Your task to perform on an android device: turn off translation in the chrome app Image 0: 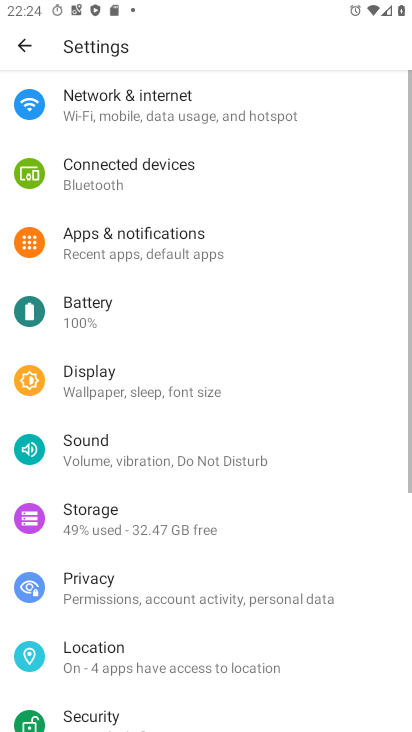
Step 0: press back button
Your task to perform on an android device: turn off translation in the chrome app Image 1: 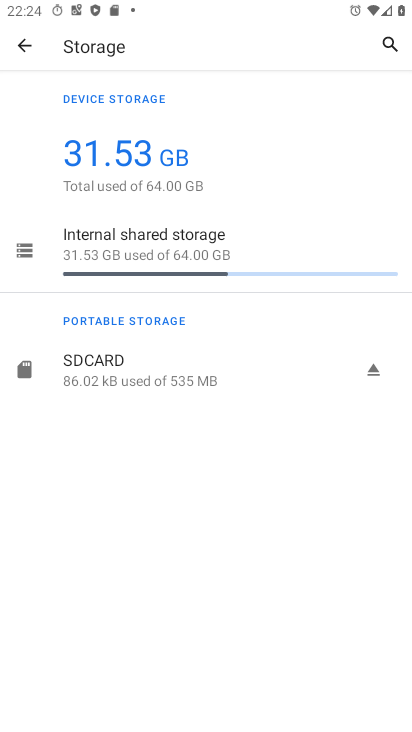
Step 1: press back button
Your task to perform on an android device: turn off translation in the chrome app Image 2: 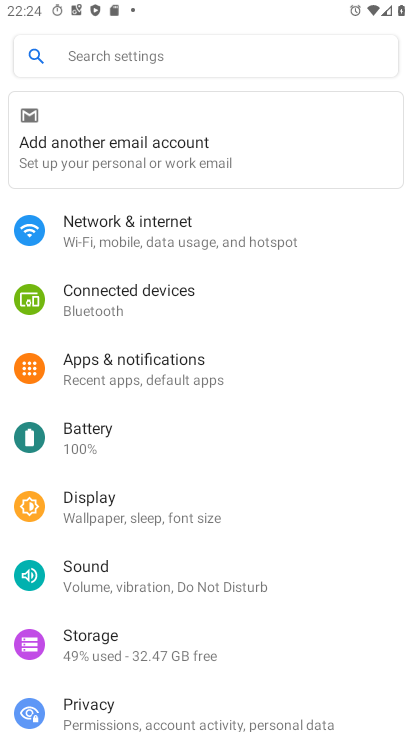
Step 2: press back button
Your task to perform on an android device: turn off translation in the chrome app Image 3: 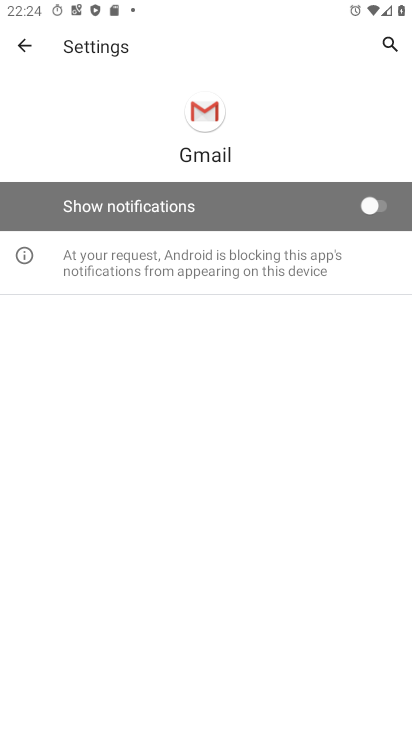
Step 3: press back button
Your task to perform on an android device: turn off translation in the chrome app Image 4: 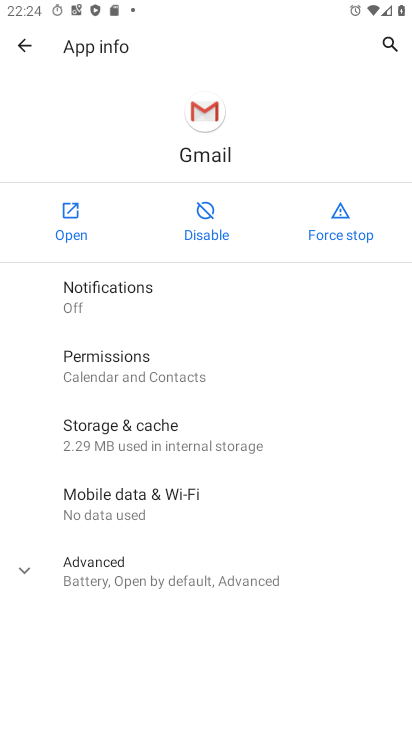
Step 4: press back button
Your task to perform on an android device: turn off translation in the chrome app Image 5: 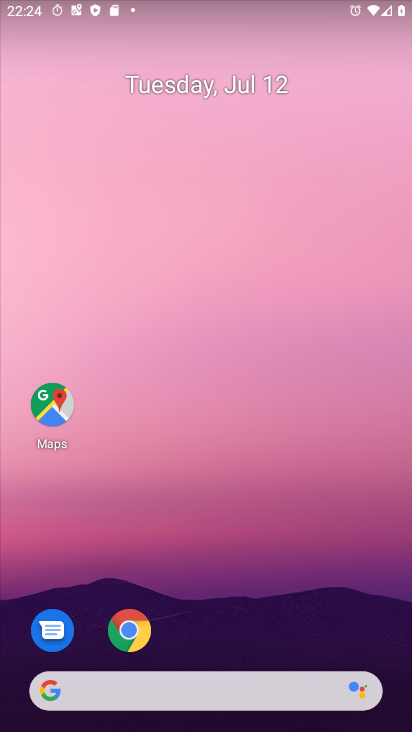
Step 5: click (129, 641)
Your task to perform on an android device: turn off translation in the chrome app Image 6: 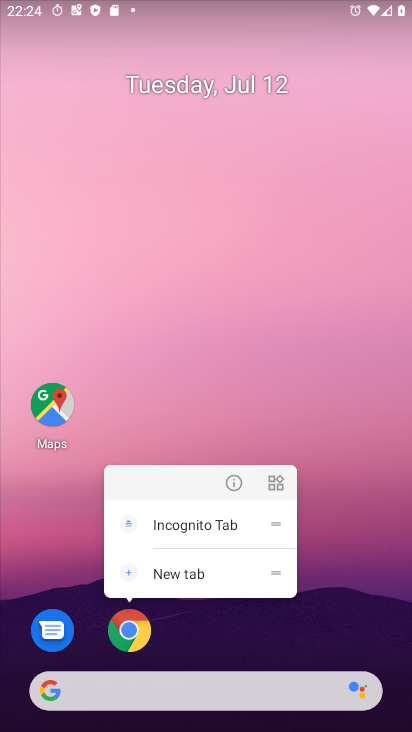
Step 6: click (140, 635)
Your task to perform on an android device: turn off translation in the chrome app Image 7: 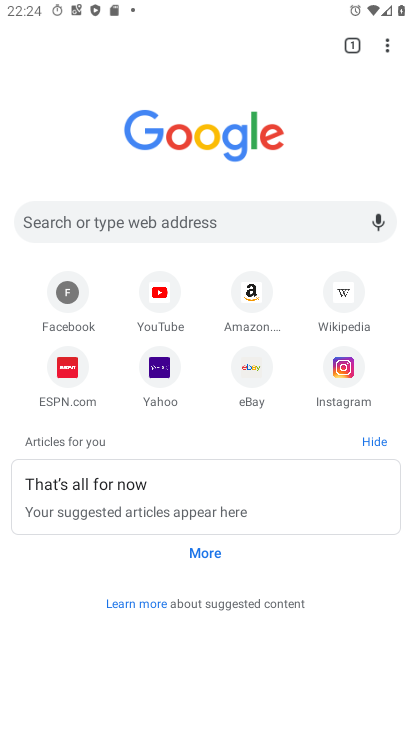
Step 7: drag from (387, 45) to (233, 379)
Your task to perform on an android device: turn off translation in the chrome app Image 8: 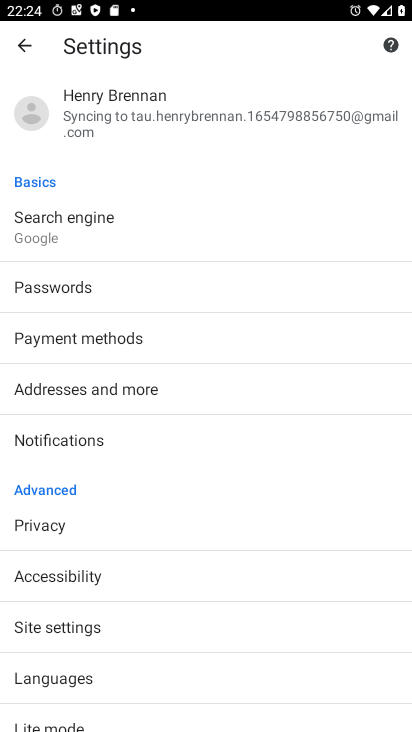
Step 8: click (105, 676)
Your task to perform on an android device: turn off translation in the chrome app Image 9: 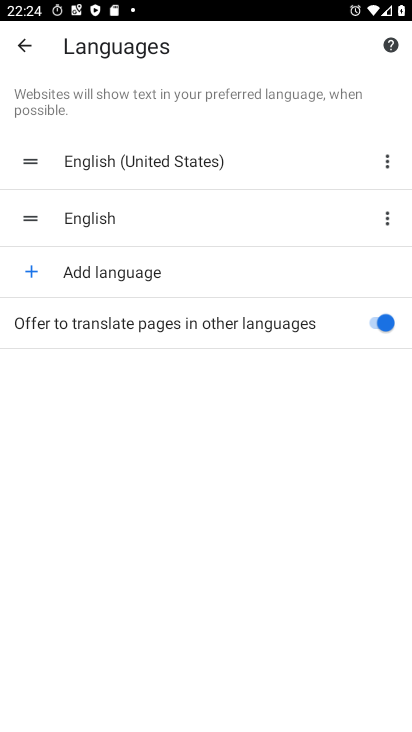
Step 9: click (384, 322)
Your task to perform on an android device: turn off translation in the chrome app Image 10: 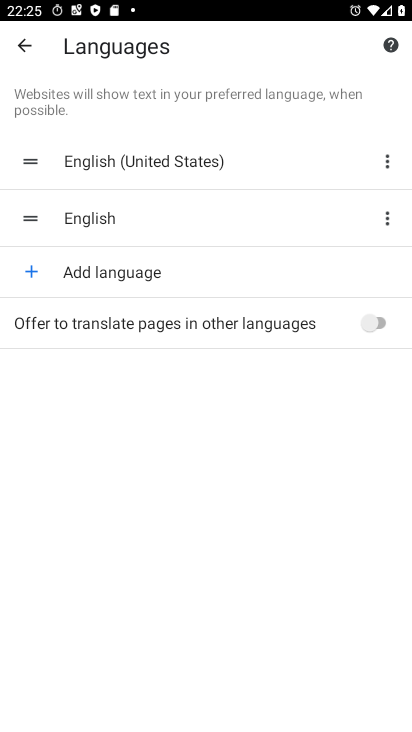
Step 10: task complete